Your task to perform on an android device: set an alarm Image 0: 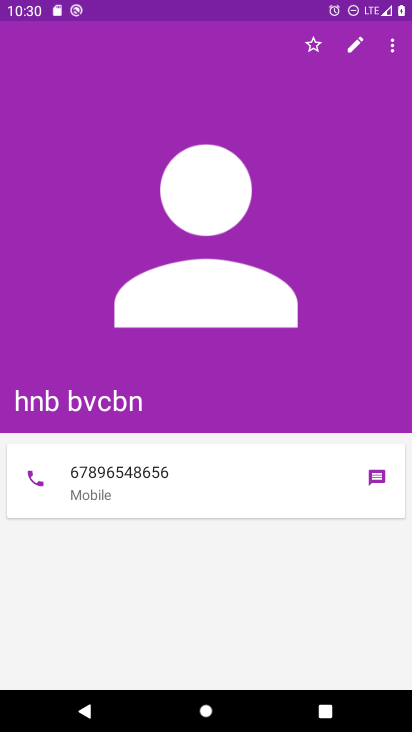
Step 0: press home button
Your task to perform on an android device: set an alarm Image 1: 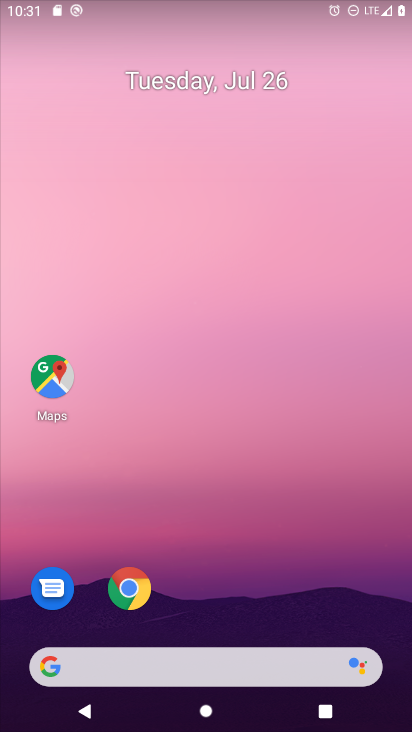
Step 1: drag from (209, 578) to (298, 224)
Your task to perform on an android device: set an alarm Image 2: 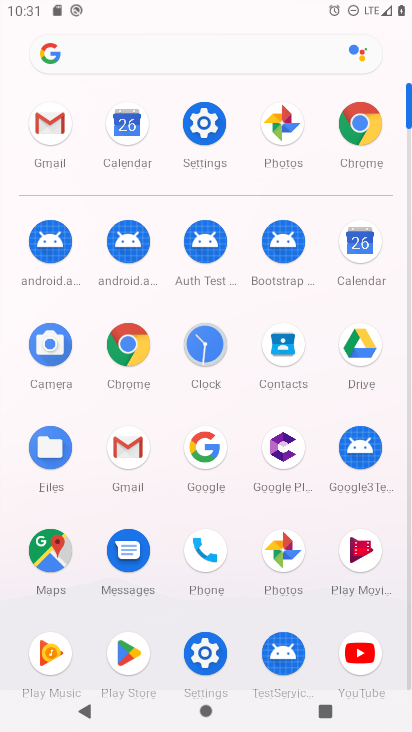
Step 2: click (209, 364)
Your task to perform on an android device: set an alarm Image 3: 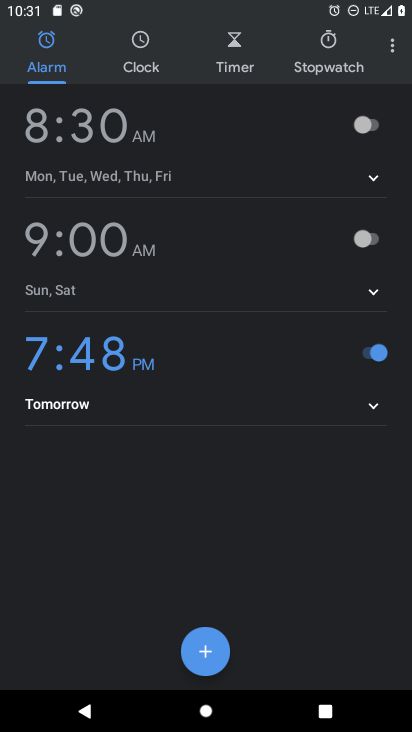
Step 3: click (212, 657)
Your task to perform on an android device: set an alarm Image 4: 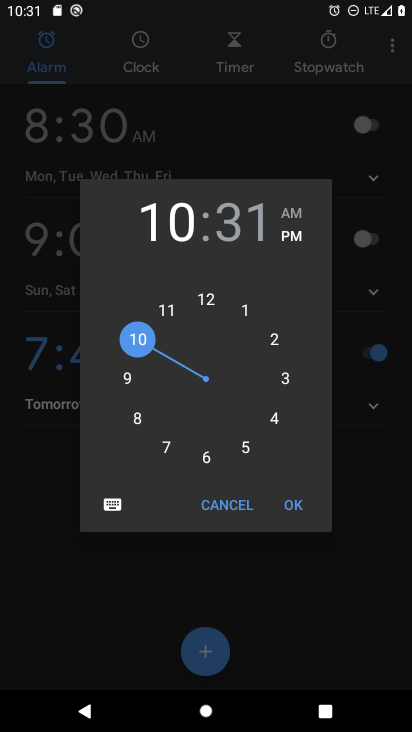
Step 4: click (292, 509)
Your task to perform on an android device: set an alarm Image 5: 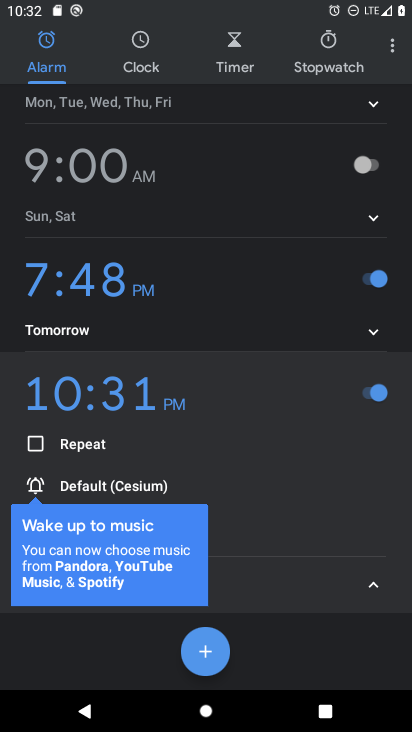
Step 5: task complete